Your task to perform on an android device: Search for a new foundation on Sephora Image 0: 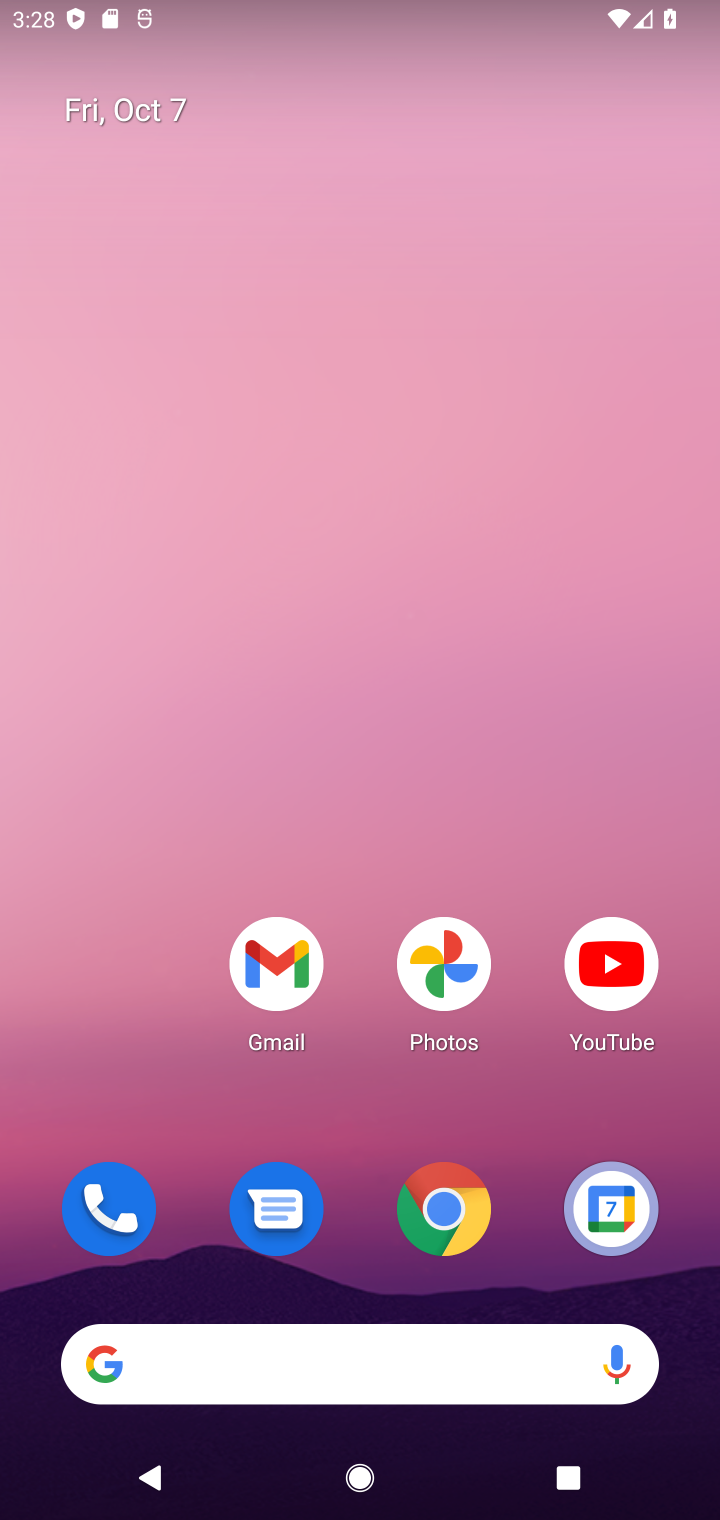
Step 0: press home button
Your task to perform on an android device: Search for a new foundation on Sephora Image 1: 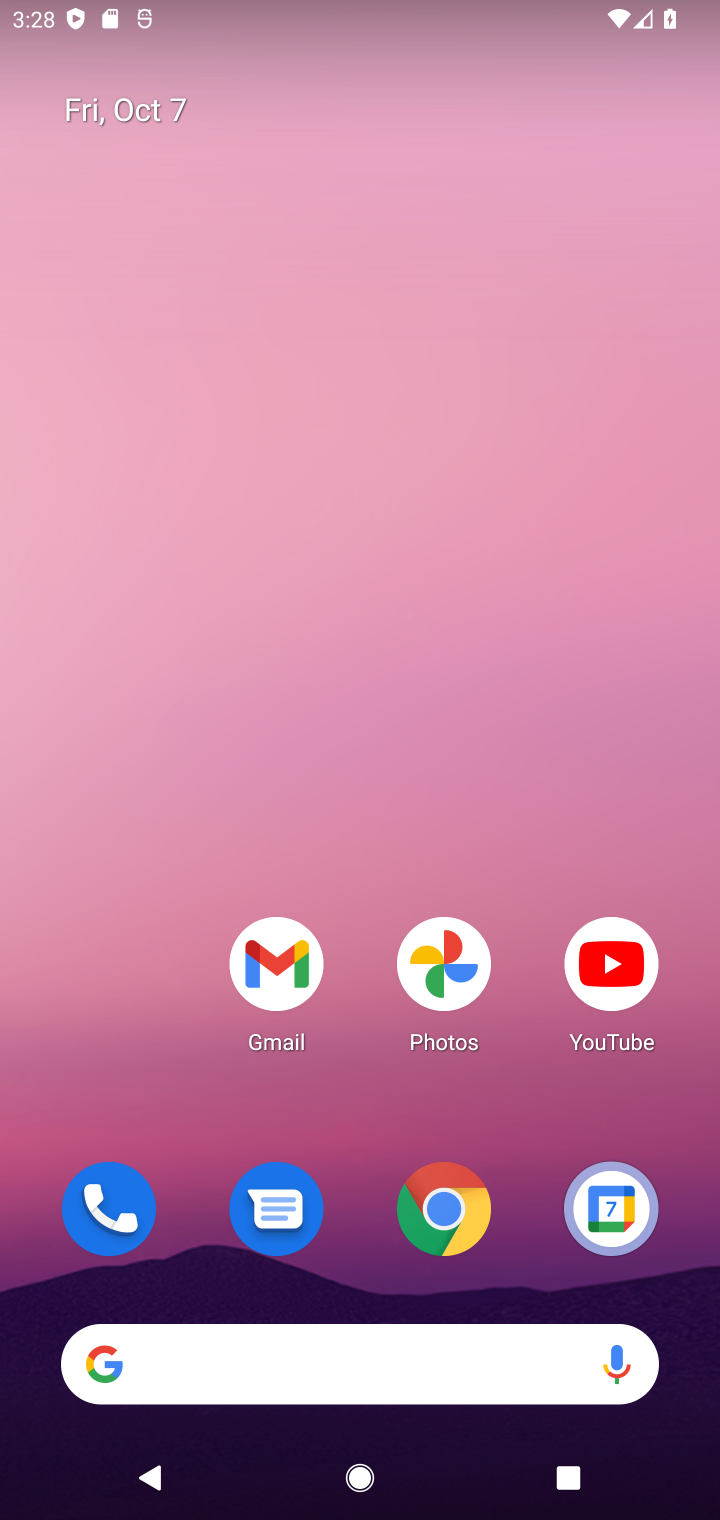
Step 1: click (281, 1371)
Your task to perform on an android device: Search for a new foundation on Sephora Image 2: 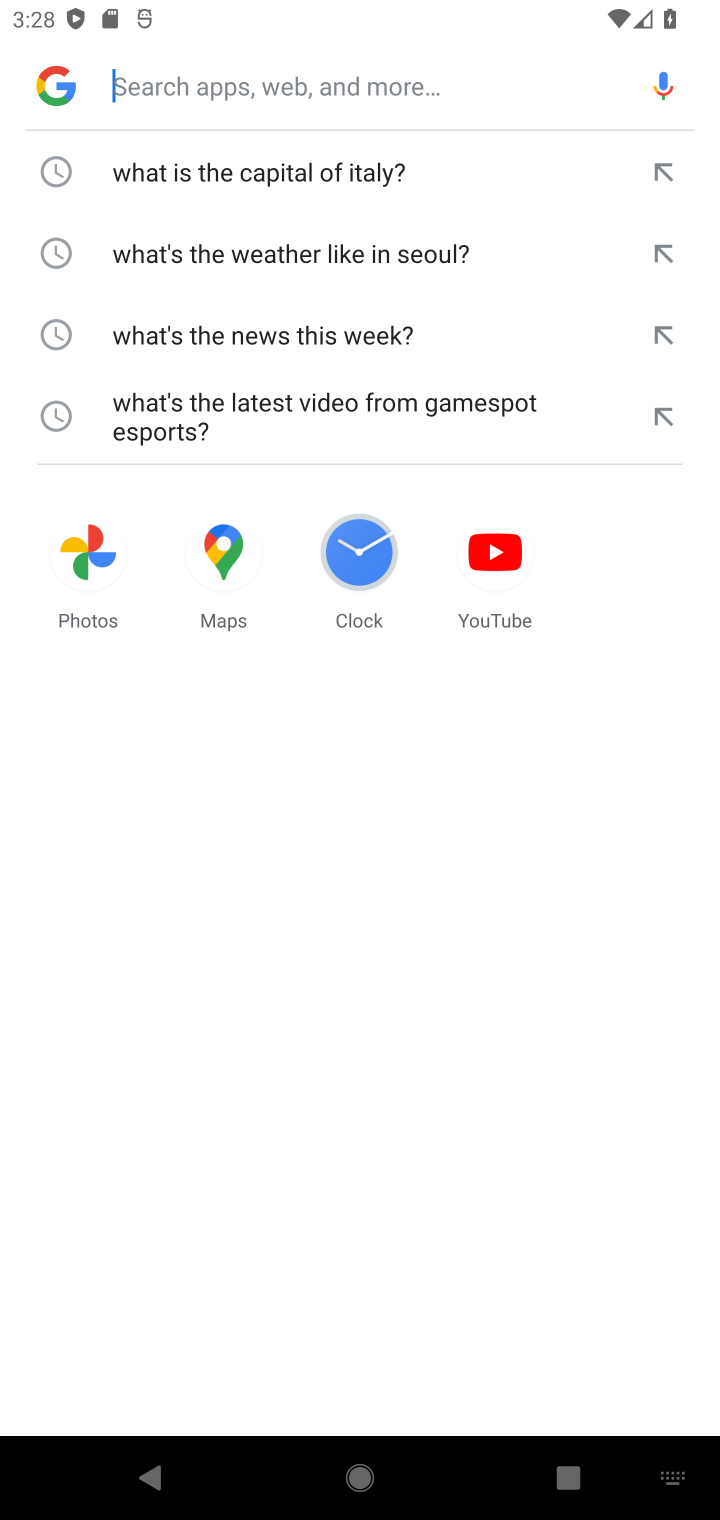
Step 2: type " new foundation on Sephora"
Your task to perform on an android device: Search for a new foundation on Sephora Image 3: 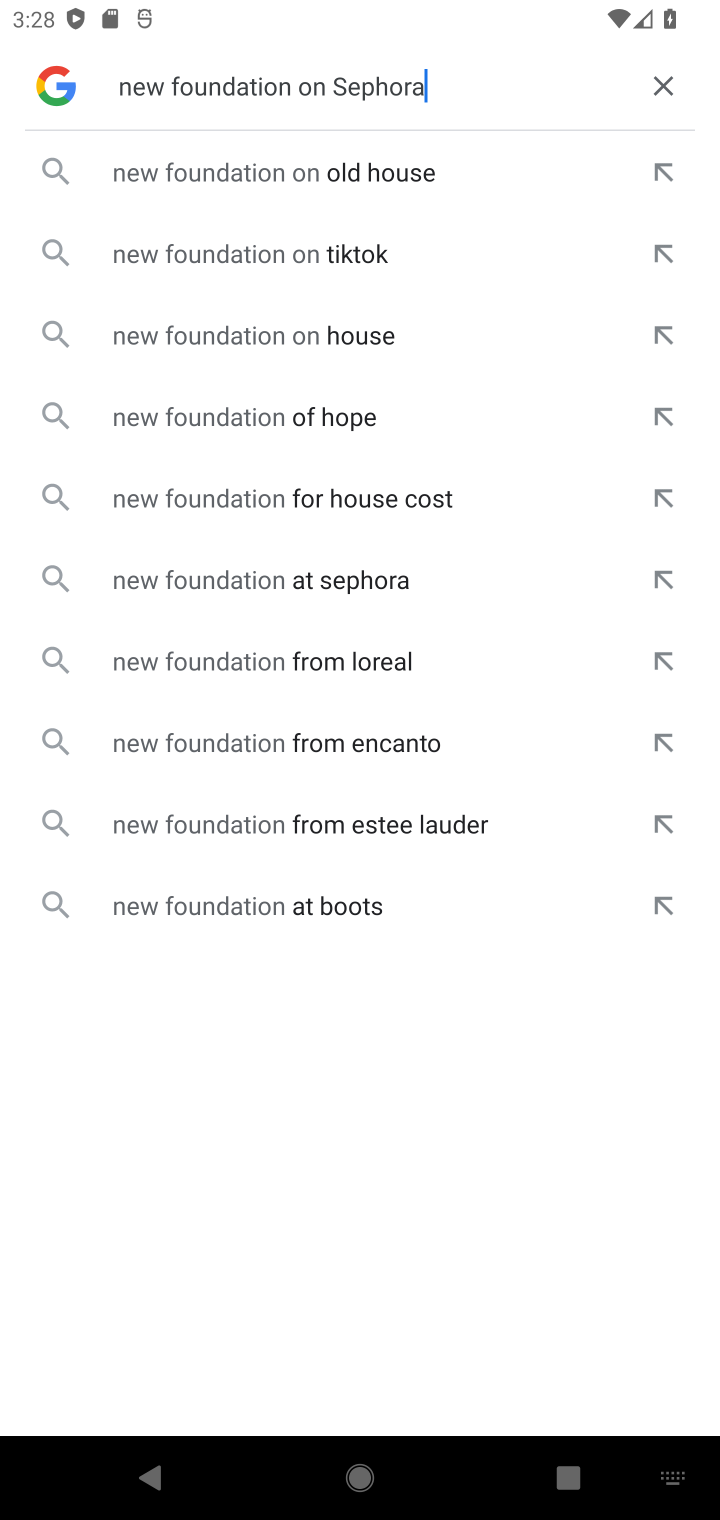
Step 3: press enter
Your task to perform on an android device: Search for a new foundation on Sephora Image 4: 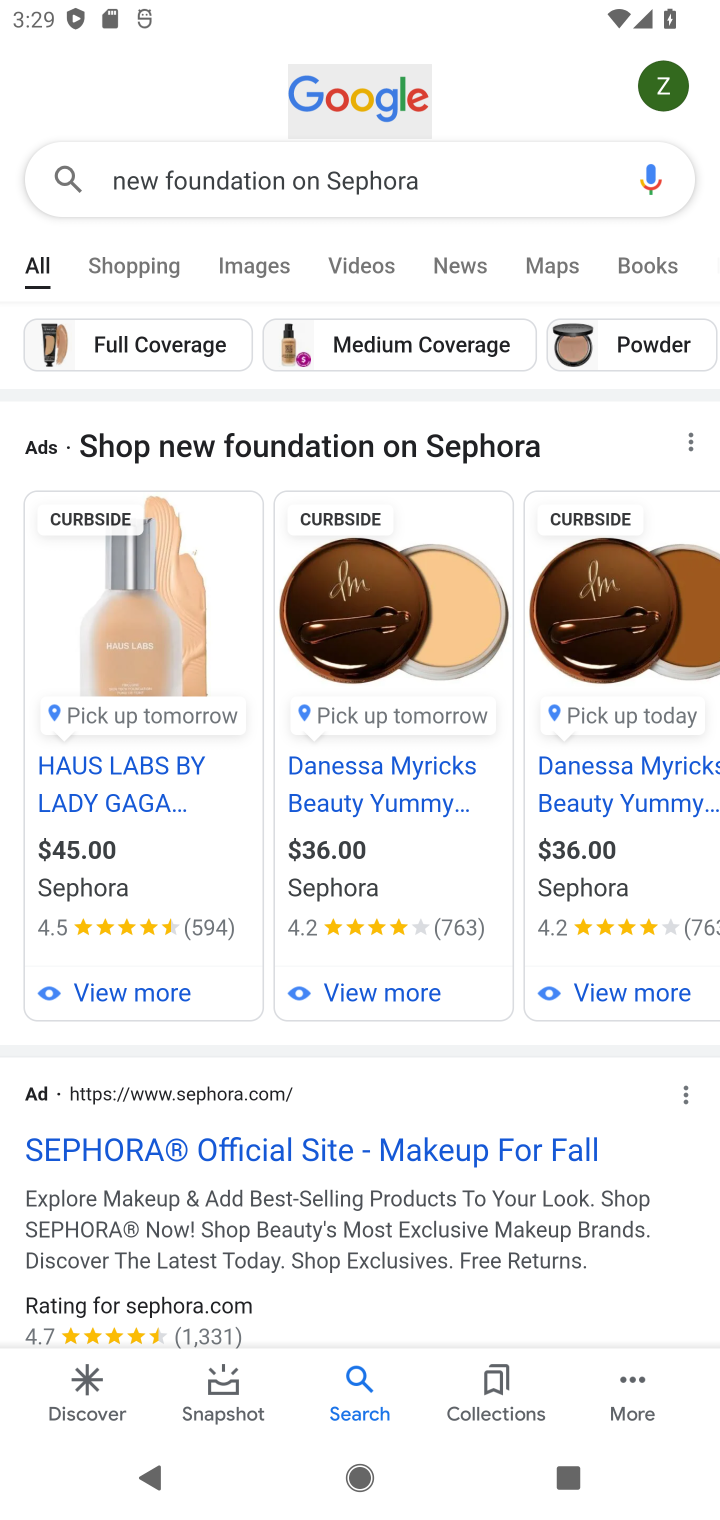
Step 4: task complete